Your task to perform on an android device: turn off priority inbox in the gmail app Image 0: 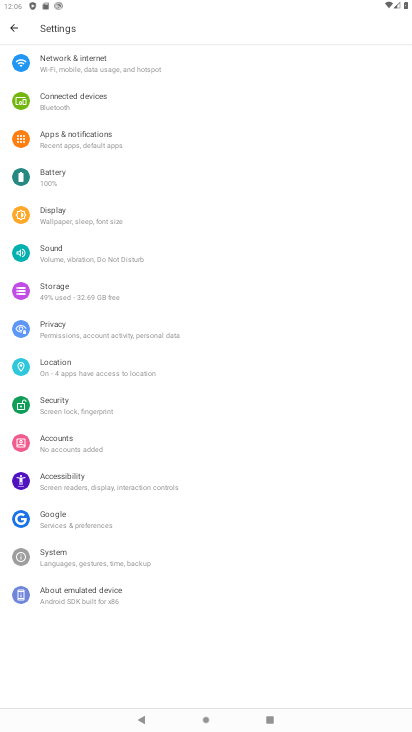
Step 0: press home button
Your task to perform on an android device: turn off priority inbox in the gmail app Image 1: 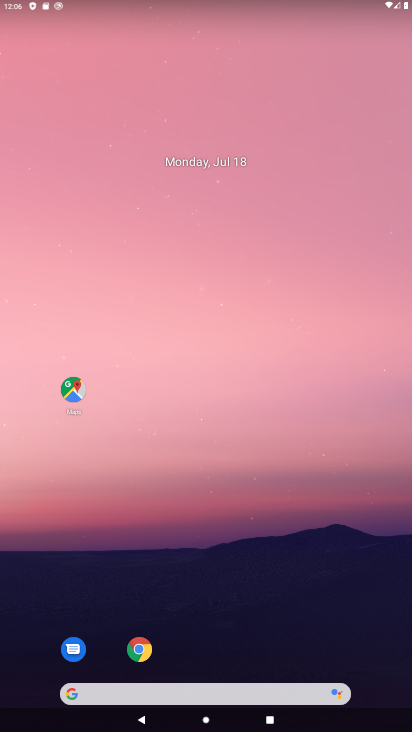
Step 1: drag from (87, 560) to (264, 218)
Your task to perform on an android device: turn off priority inbox in the gmail app Image 2: 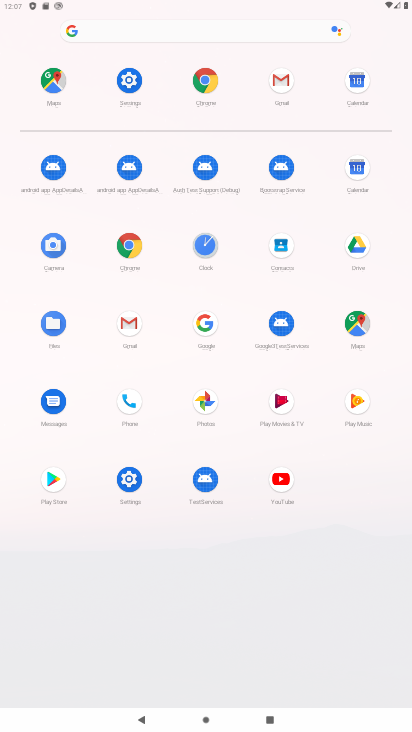
Step 2: click (130, 328)
Your task to perform on an android device: turn off priority inbox in the gmail app Image 3: 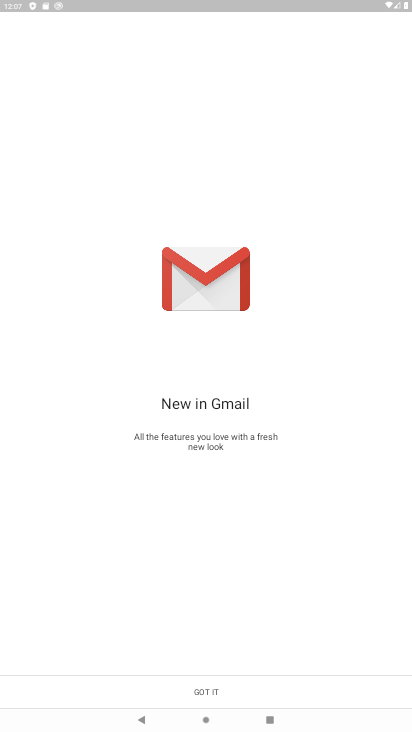
Step 3: click (181, 681)
Your task to perform on an android device: turn off priority inbox in the gmail app Image 4: 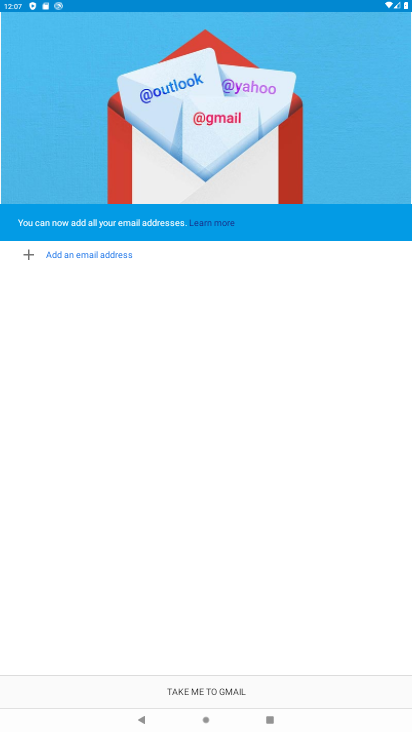
Step 4: click (182, 683)
Your task to perform on an android device: turn off priority inbox in the gmail app Image 5: 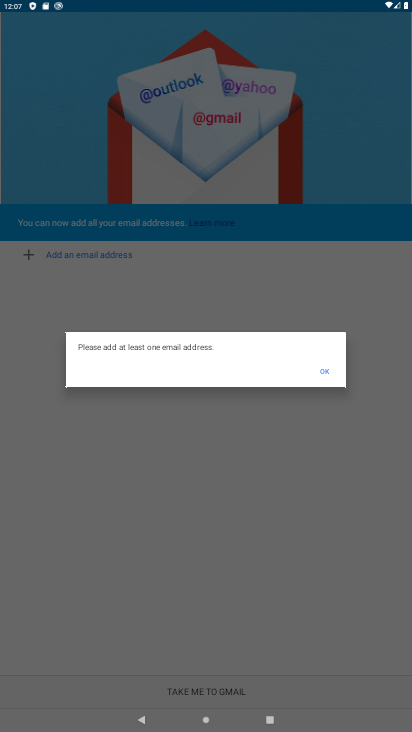
Step 5: task complete